Your task to perform on an android device: Open the calendar app, open the side menu, and click the "Day" option Image 0: 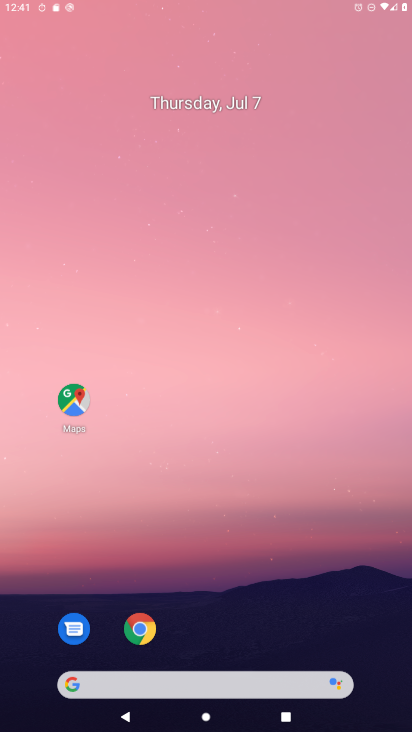
Step 0: click (223, 153)
Your task to perform on an android device: Open the calendar app, open the side menu, and click the "Day" option Image 1: 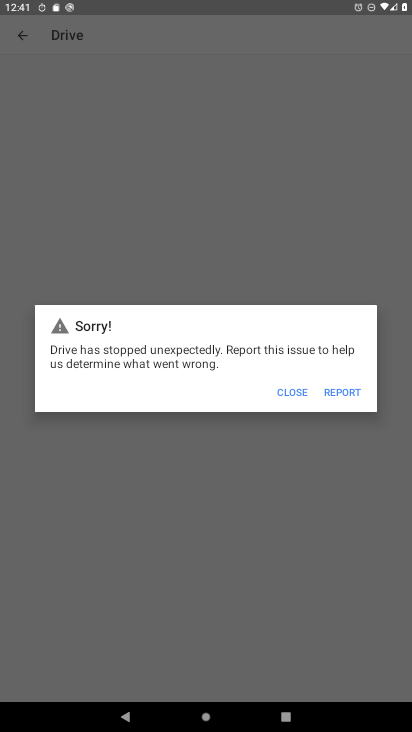
Step 1: press home button
Your task to perform on an android device: Open the calendar app, open the side menu, and click the "Day" option Image 2: 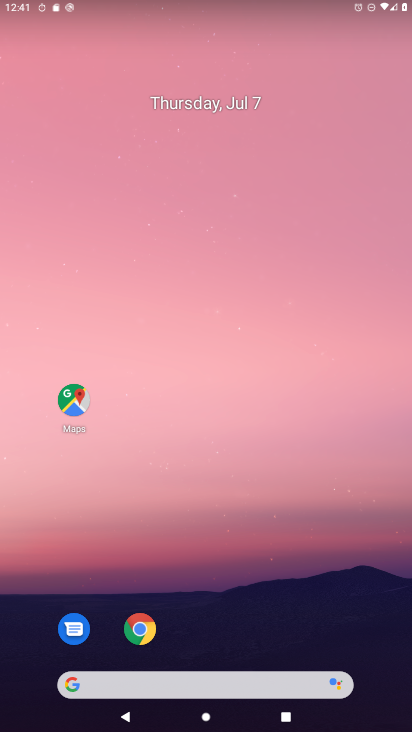
Step 2: drag from (209, 630) to (215, 155)
Your task to perform on an android device: Open the calendar app, open the side menu, and click the "Day" option Image 3: 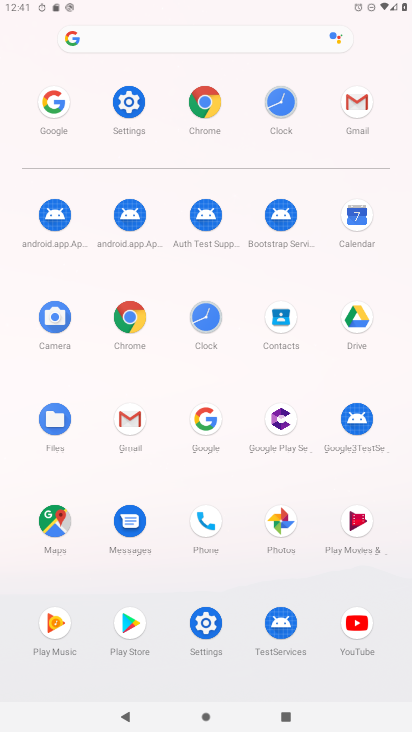
Step 3: click (352, 235)
Your task to perform on an android device: Open the calendar app, open the side menu, and click the "Day" option Image 4: 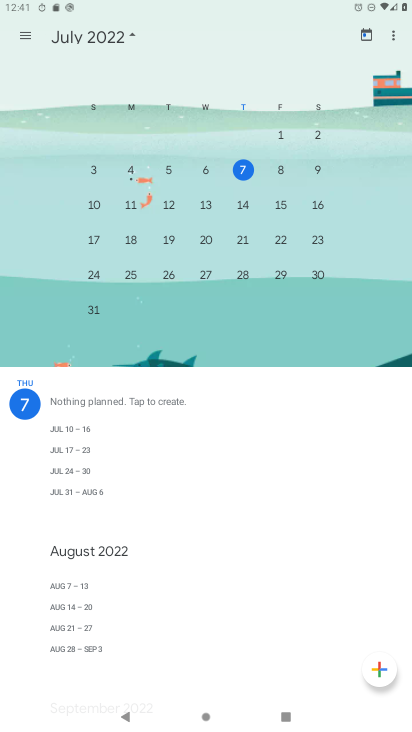
Step 4: click (26, 37)
Your task to perform on an android device: Open the calendar app, open the side menu, and click the "Day" option Image 5: 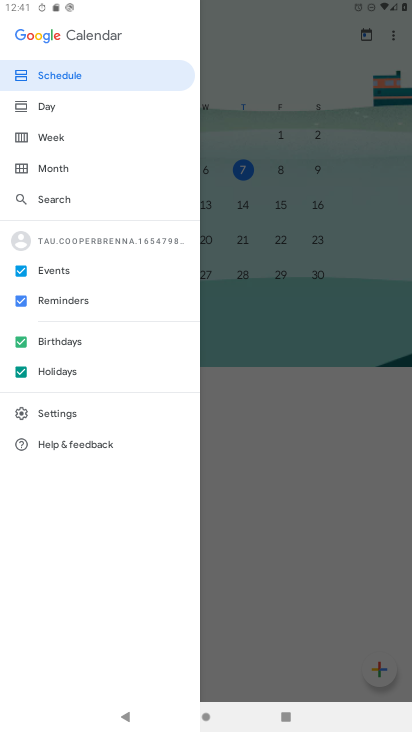
Step 5: click (78, 109)
Your task to perform on an android device: Open the calendar app, open the side menu, and click the "Day" option Image 6: 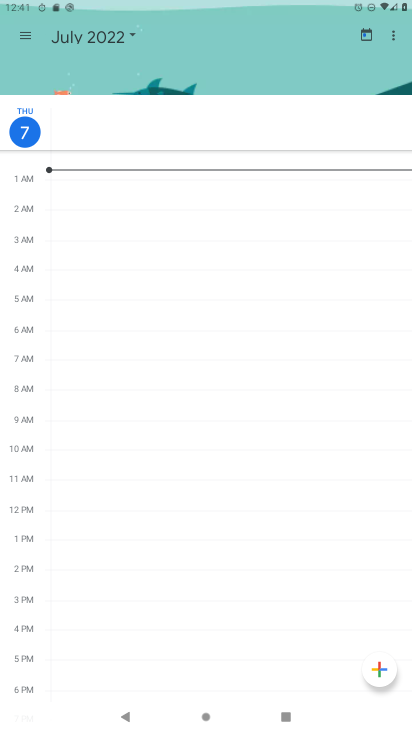
Step 6: task complete